Your task to perform on an android device: turn on priority inbox in the gmail app Image 0: 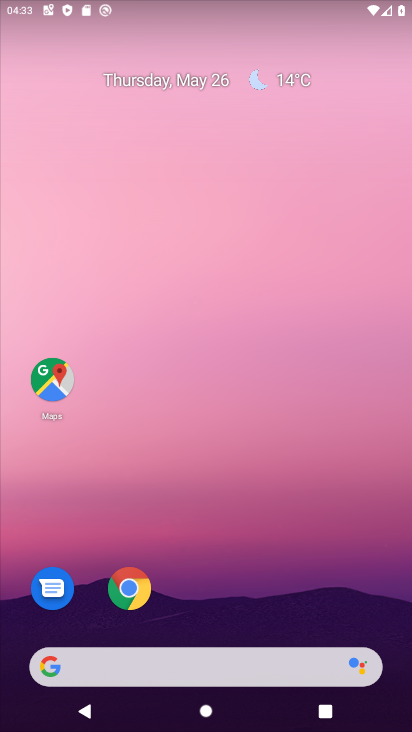
Step 0: drag from (284, 609) to (370, 56)
Your task to perform on an android device: turn on priority inbox in the gmail app Image 1: 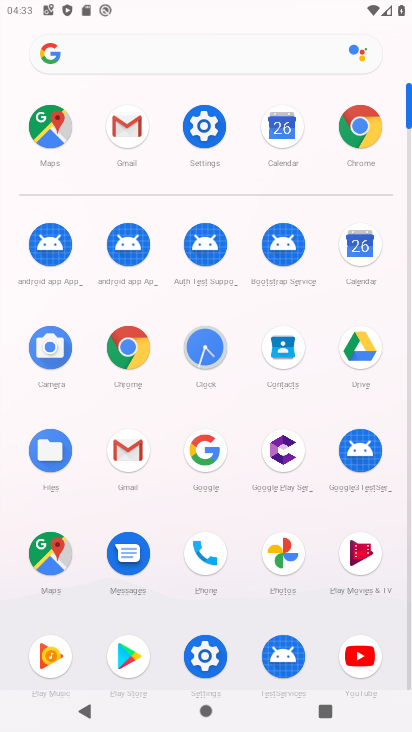
Step 1: click (123, 135)
Your task to perform on an android device: turn on priority inbox in the gmail app Image 2: 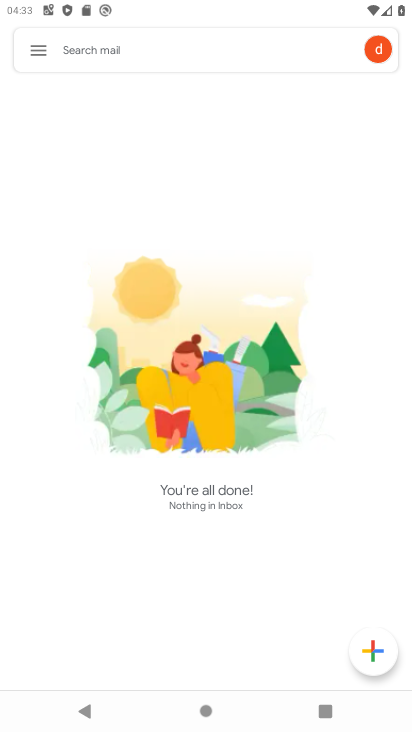
Step 2: click (53, 56)
Your task to perform on an android device: turn on priority inbox in the gmail app Image 3: 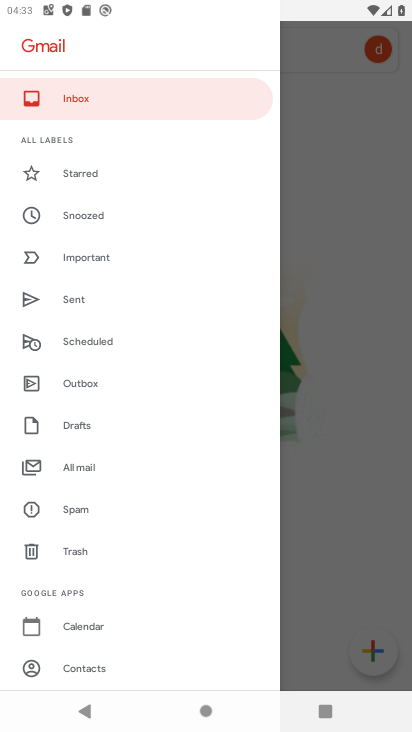
Step 3: drag from (119, 647) to (127, 397)
Your task to perform on an android device: turn on priority inbox in the gmail app Image 4: 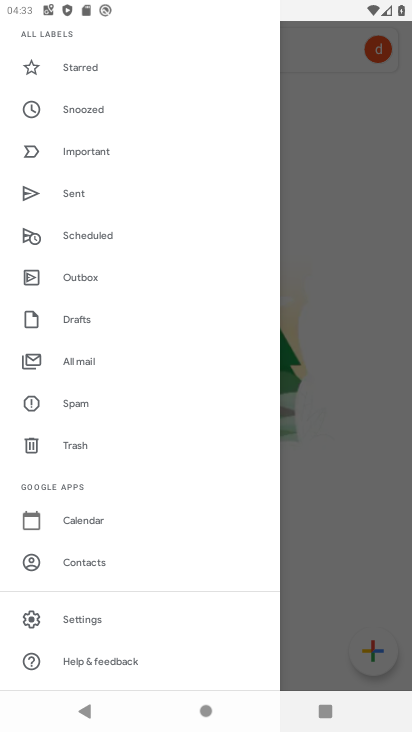
Step 4: click (152, 607)
Your task to perform on an android device: turn on priority inbox in the gmail app Image 5: 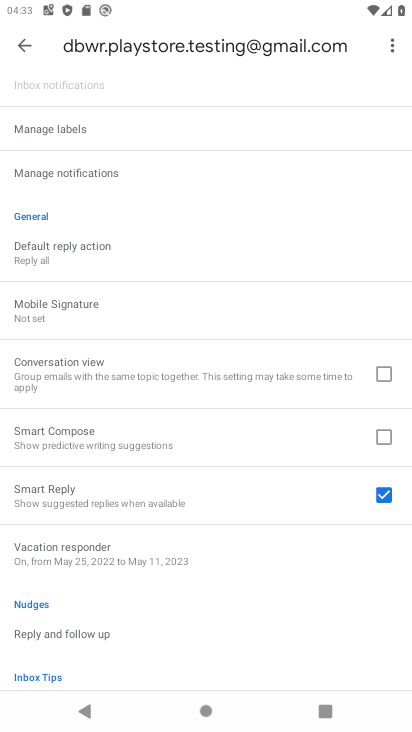
Step 5: task complete